Your task to perform on an android device: Go to Android settings Image 0: 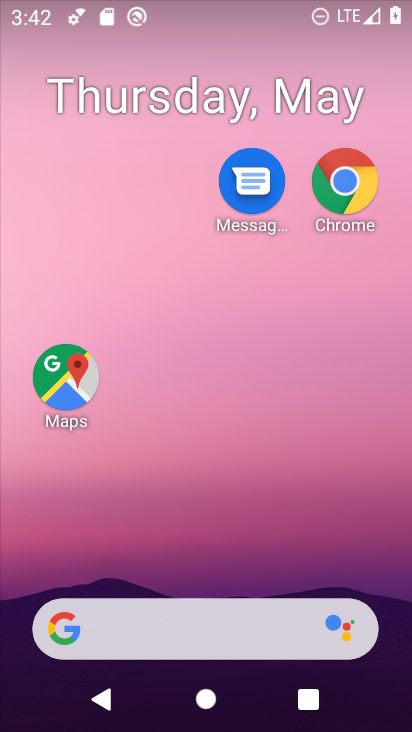
Step 0: drag from (172, 621) to (278, 123)
Your task to perform on an android device: Go to Android settings Image 1: 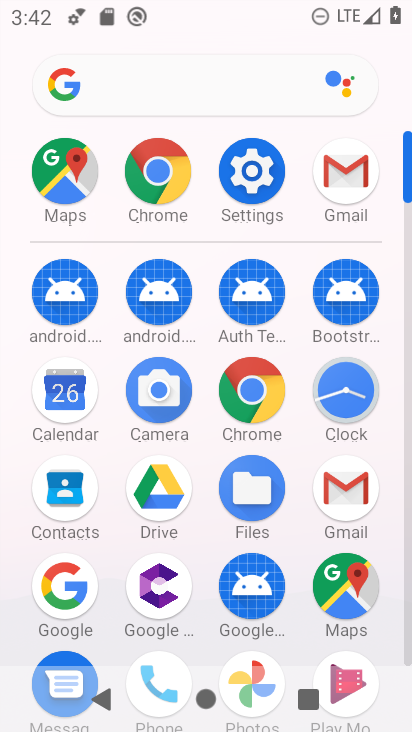
Step 1: click (258, 192)
Your task to perform on an android device: Go to Android settings Image 2: 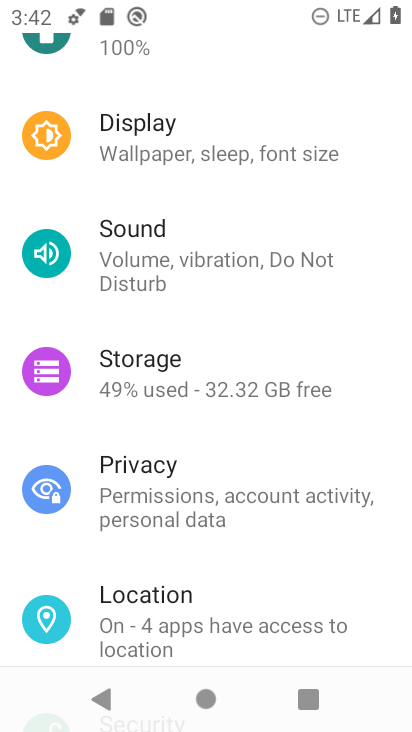
Step 2: drag from (242, 627) to (280, 61)
Your task to perform on an android device: Go to Android settings Image 3: 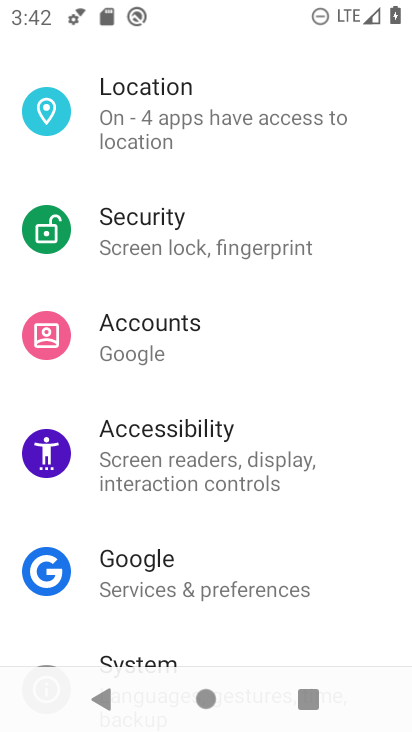
Step 3: drag from (238, 613) to (230, 81)
Your task to perform on an android device: Go to Android settings Image 4: 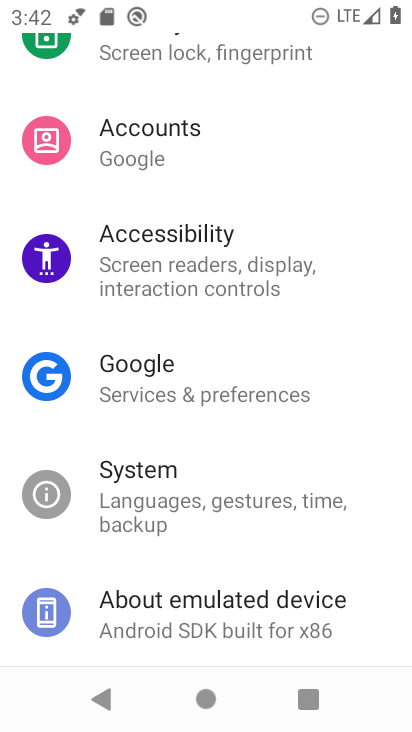
Step 4: click (248, 618)
Your task to perform on an android device: Go to Android settings Image 5: 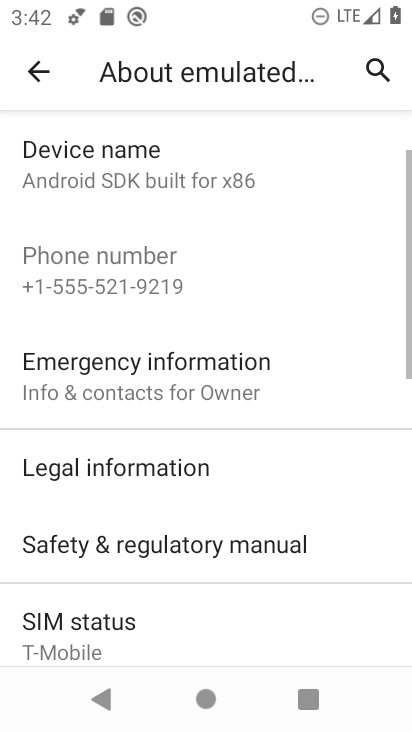
Step 5: drag from (232, 590) to (207, 56)
Your task to perform on an android device: Go to Android settings Image 6: 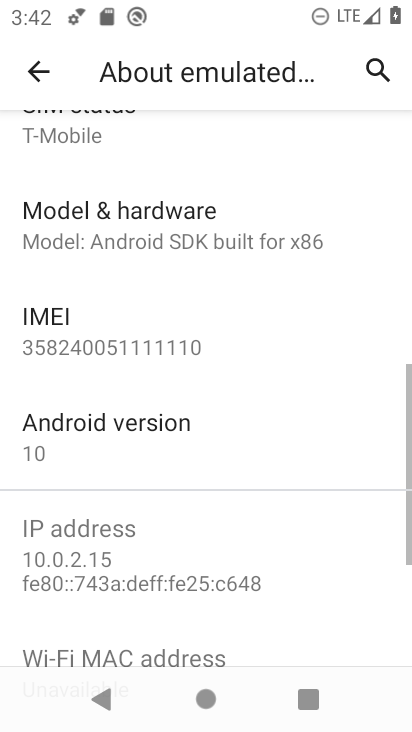
Step 6: click (158, 436)
Your task to perform on an android device: Go to Android settings Image 7: 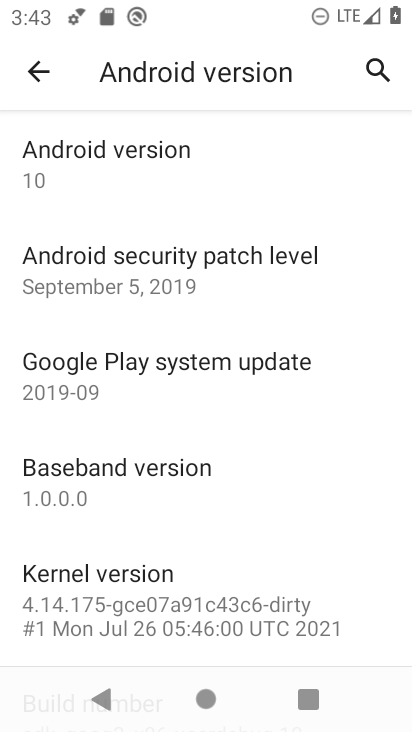
Step 7: drag from (171, 582) to (195, 302)
Your task to perform on an android device: Go to Android settings Image 8: 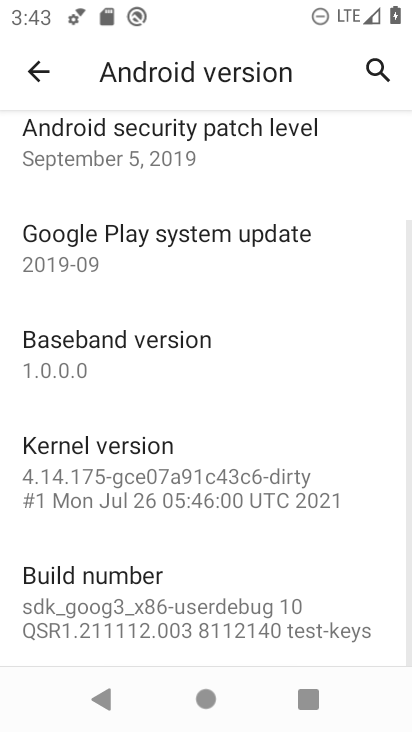
Step 8: drag from (176, 158) to (202, 596)
Your task to perform on an android device: Go to Android settings Image 9: 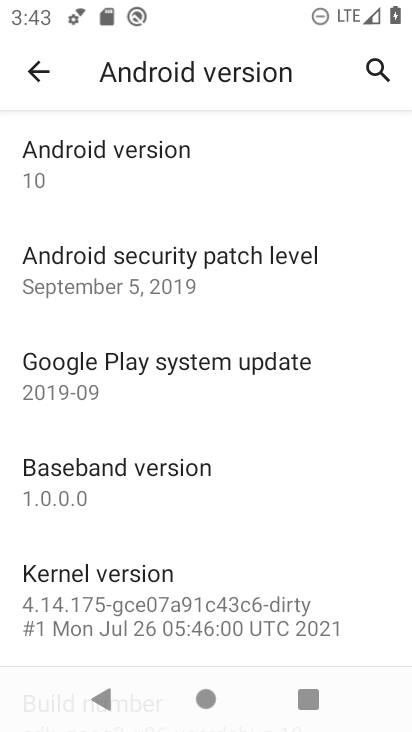
Step 9: click (167, 160)
Your task to perform on an android device: Go to Android settings Image 10: 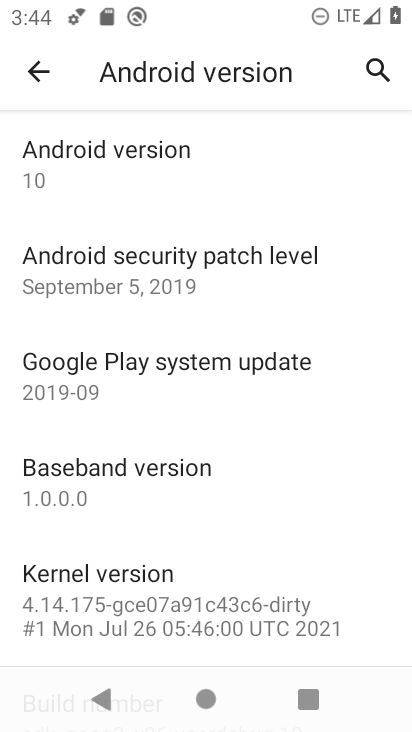
Step 10: task complete